Your task to perform on an android device: turn off location Image 0: 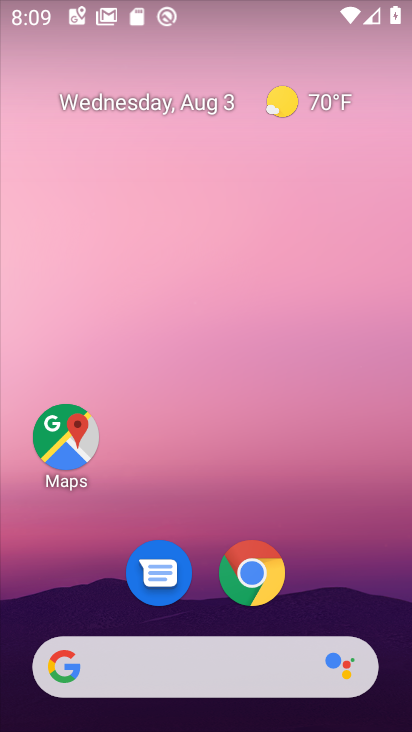
Step 0: drag from (332, 591) to (331, 19)
Your task to perform on an android device: turn off location Image 1: 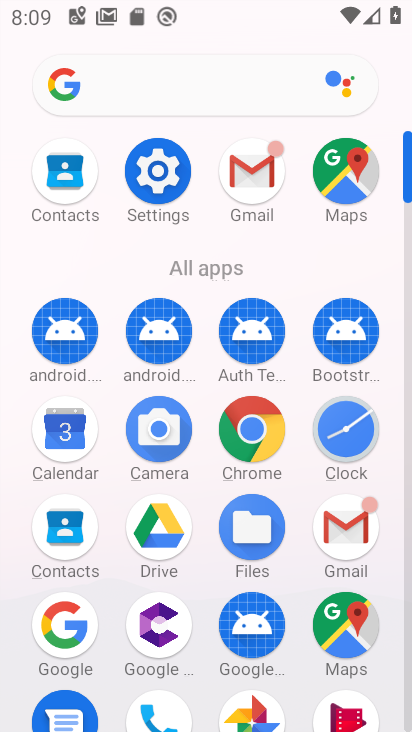
Step 1: click (147, 177)
Your task to perform on an android device: turn off location Image 2: 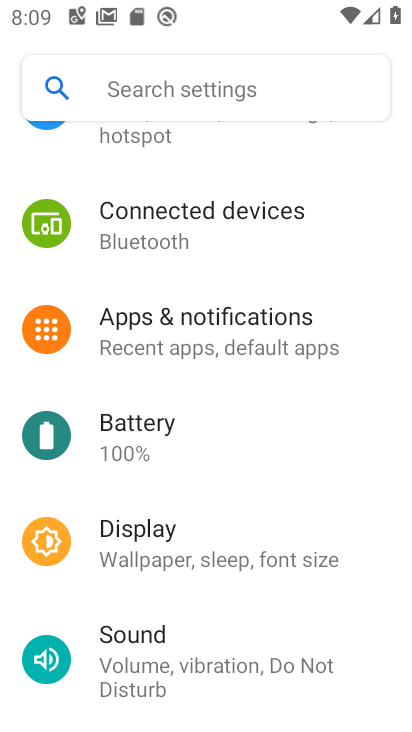
Step 2: drag from (378, 510) to (365, 234)
Your task to perform on an android device: turn off location Image 3: 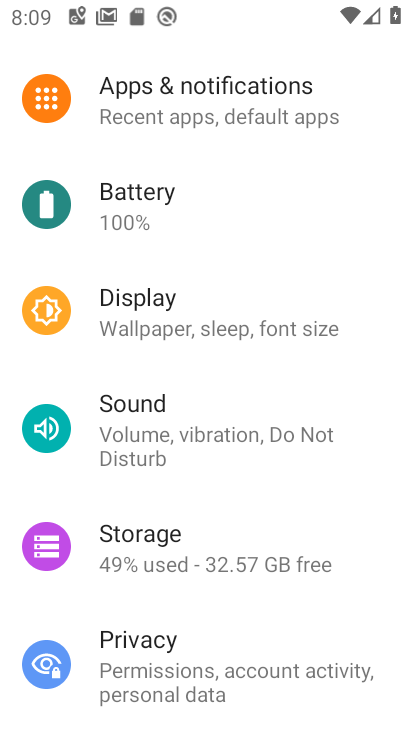
Step 3: drag from (375, 553) to (357, 220)
Your task to perform on an android device: turn off location Image 4: 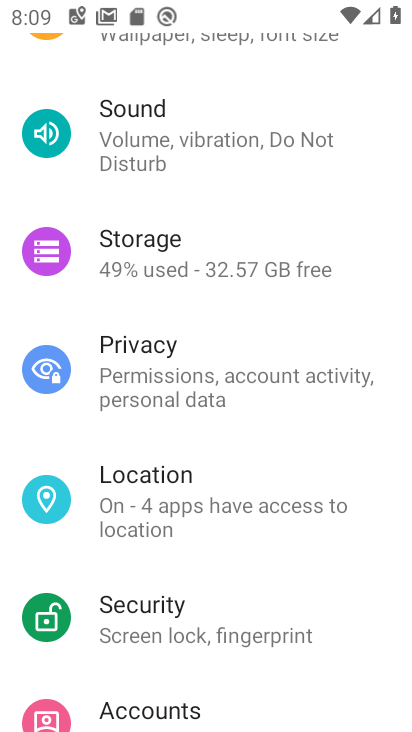
Step 4: click (153, 493)
Your task to perform on an android device: turn off location Image 5: 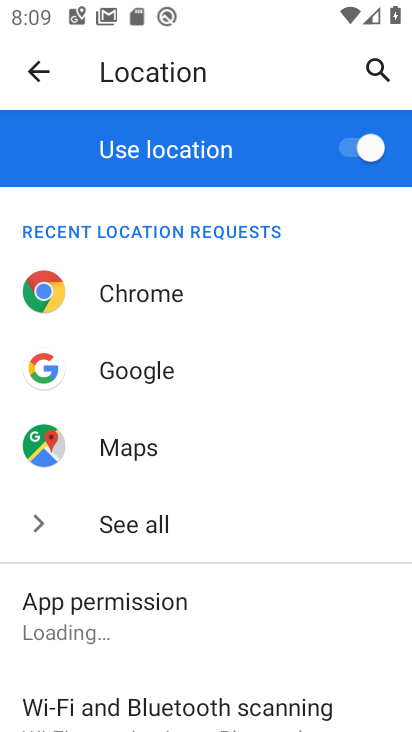
Step 5: click (365, 153)
Your task to perform on an android device: turn off location Image 6: 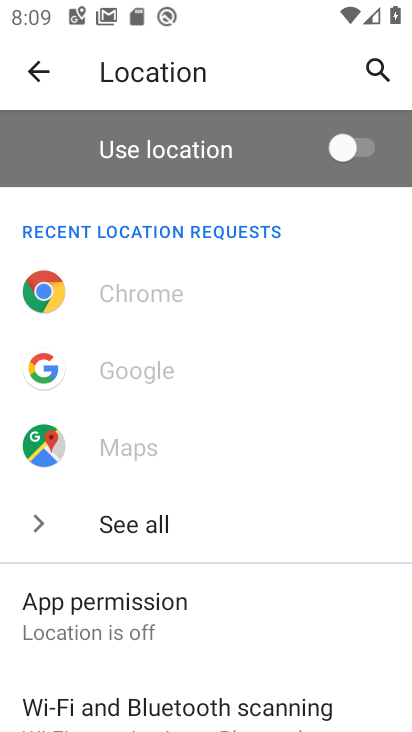
Step 6: task complete